Your task to perform on an android device: Search for seafood restaurants on Google Maps Image 0: 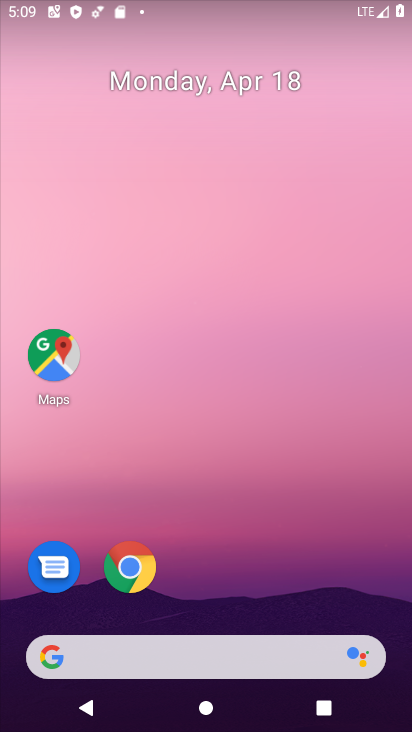
Step 0: drag from (315, 553) to (278, 22)
Your task to perform on an android device: Search for seafood restaurants on Google Maps Image 1: 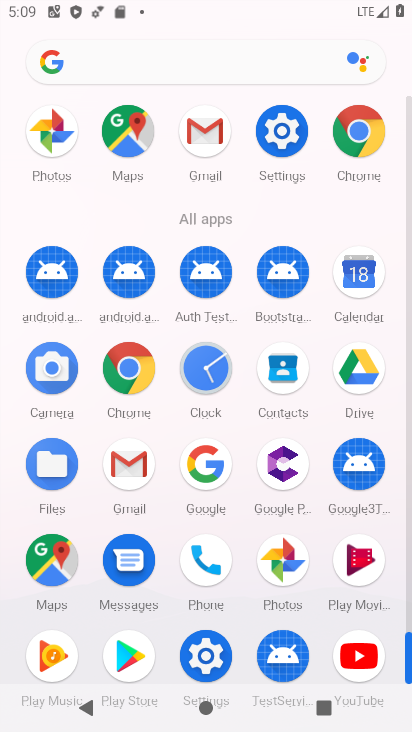
Step 1: drag from (9, 457) to (6, 356)
Your task to perform on an android device: Search for seafood restaurants on Google Maps Image 2: 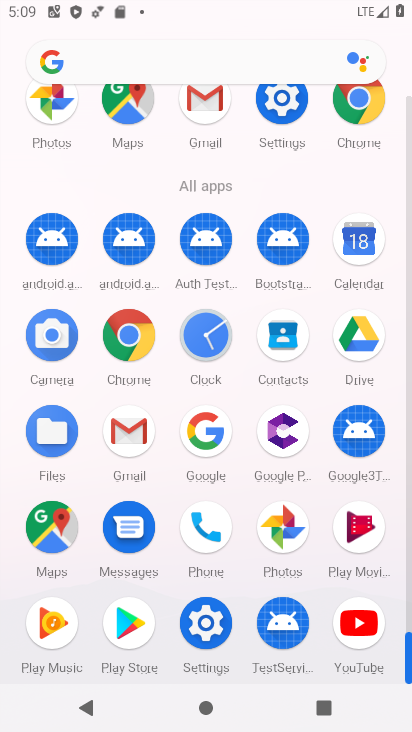
Step 2: drag from (9, 536) to (14, 351)
Your task to perform on an android device: Search for seafood restaurants on Google Maps Image 3: 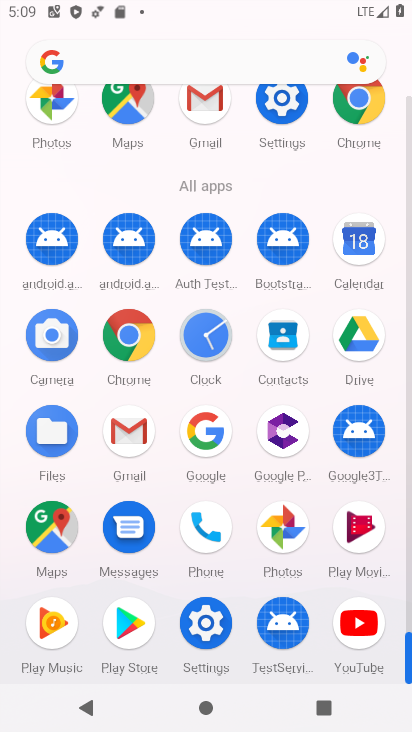
Step 3: click (53, 520)
Your task to perform on an android device: Search for seafood restaurants on Google Maps Image 4: 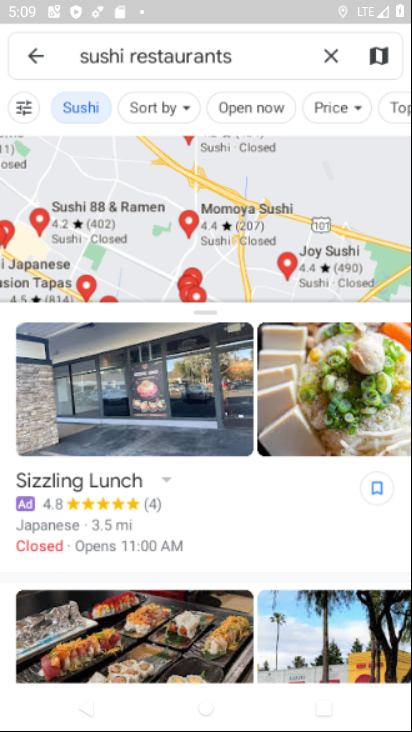
Step 4: click (323, 50)
Your task to perform on an android device: Search for seafood restaurants on Google Maps Image 5: 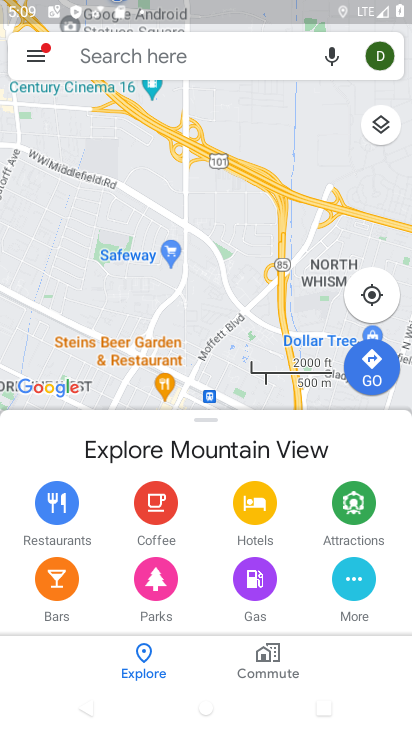
Step 5: click (251, 55)
Your task to perform on an android device: Search for seafood restaurants on Google Maps Image 6: 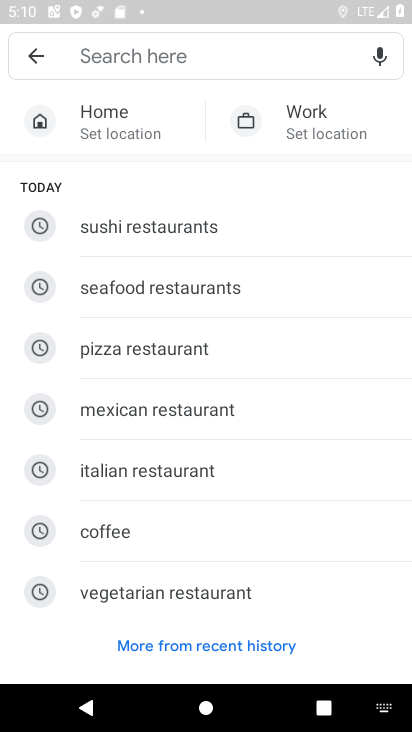
Step 6: click (191, 288)
Your task to perform on an android device: Search for seafood restaurants on Google Maps Image 7: 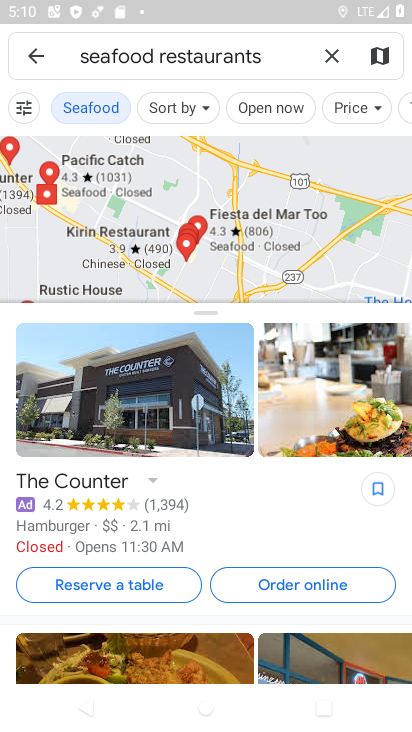
Step 7: task complete